Your task to perform on an android device: turn notification dots off Image 0: 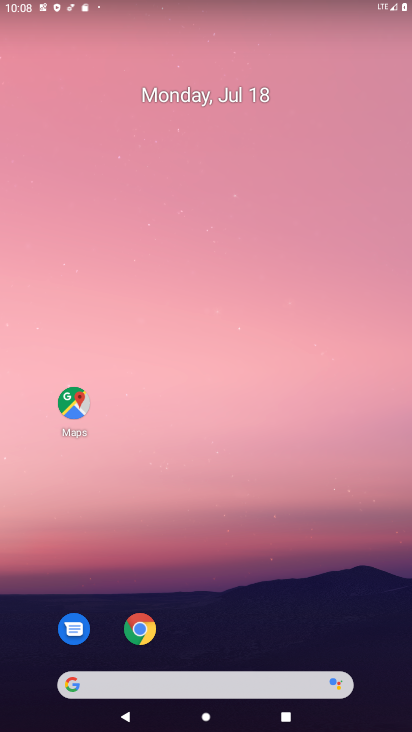
Step 0: drag from (199, 657) to (162, 225)
Your task to perform on an android device: turn notification dots off Image 1: 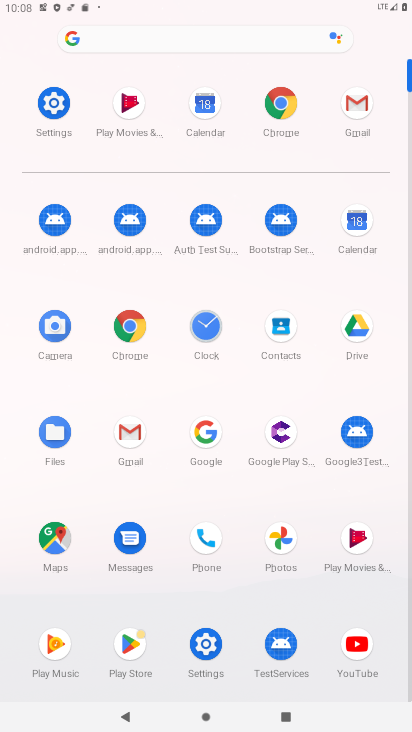
Step 1: click (223, 642)
Your task to perform on an android device: turn notification dots off Image 2: 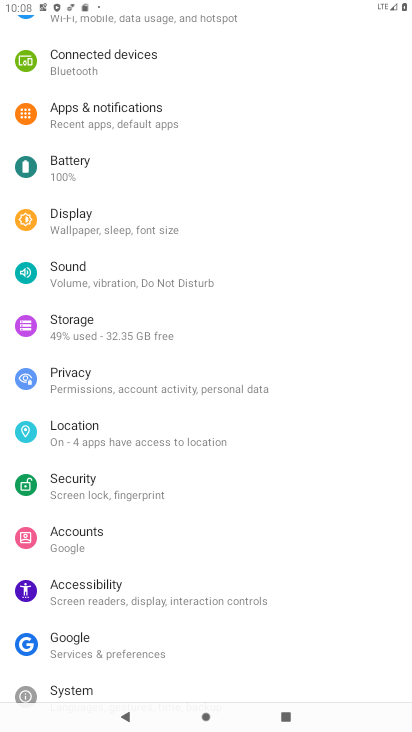
Step 2: click (94, 105)
Your task to perform on an android device: turn notification dots off Image 3: 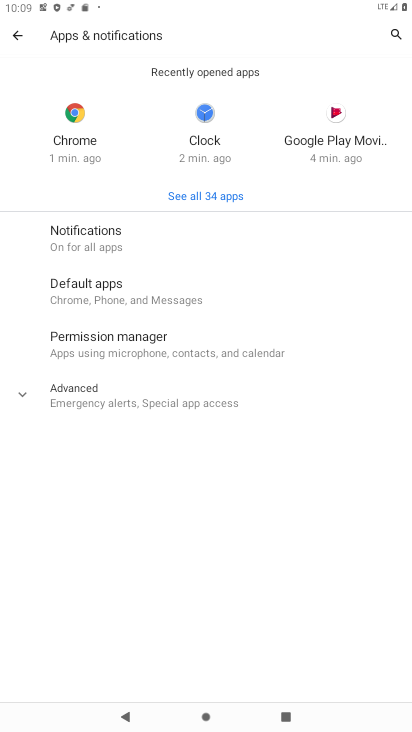
Step 3: click (100, 250)
Your task to perform on an android device: turn notification dots off Image 4: 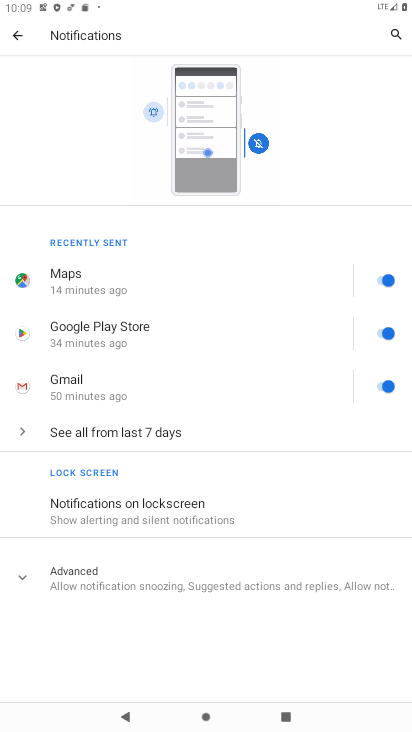
Step 4: click (166, 573)
Your task to perform on an android device: turn notification dots off Image 5: 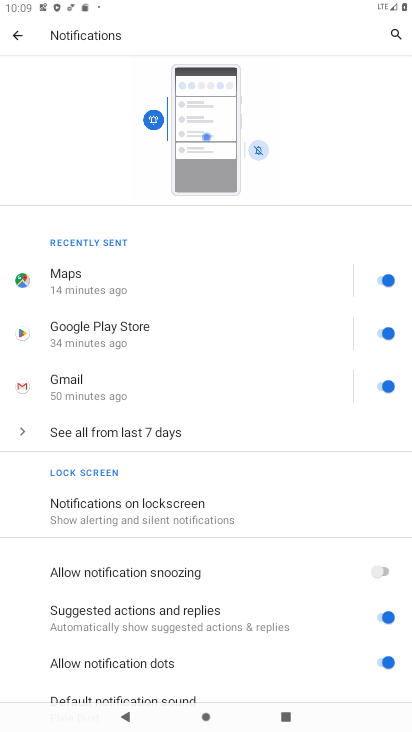
Step 5: click (386, 660)
Your task to perform on an android device: turn notification dots off Image 6: 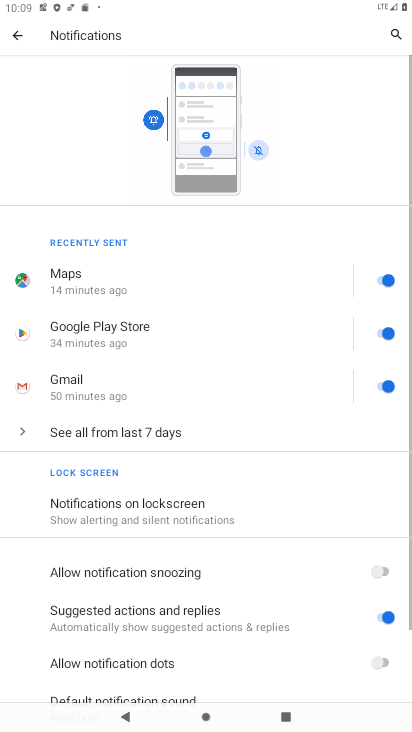
Step 6: task complete